Your task to perform on an android device: Look up the best rated drill on Lowes. Image 0: 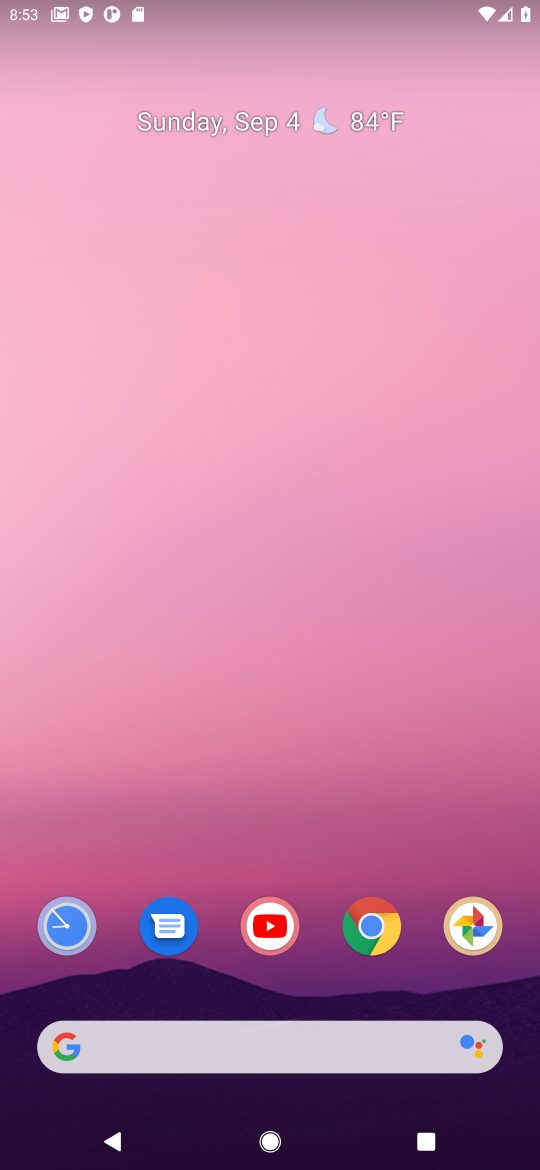
Step 0: click (188, 1048)
Your task to perform on an android device: Look up the best rated drill on Lowes. Image 1: 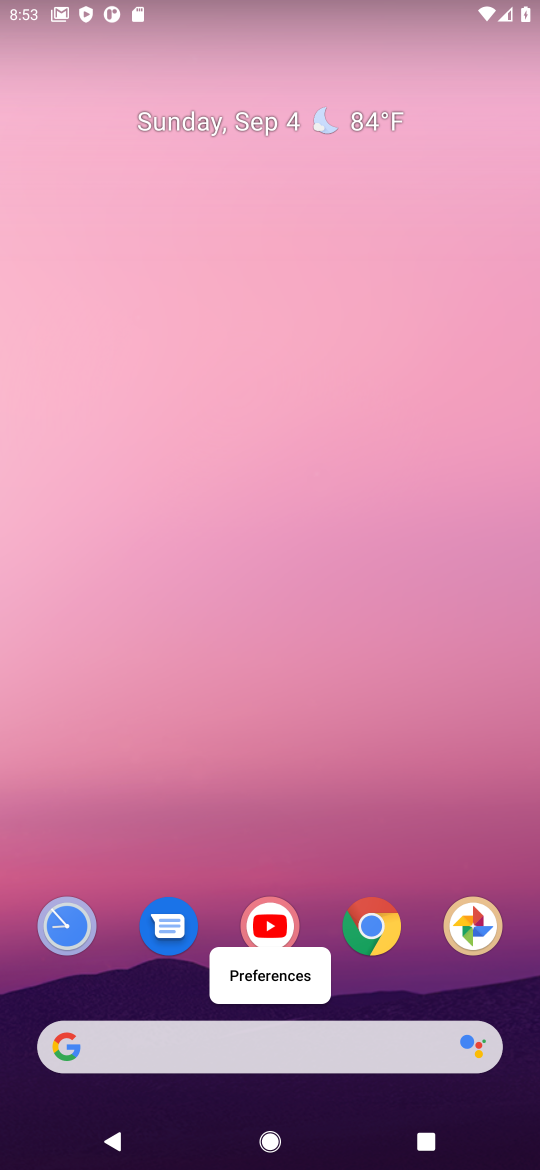
Step 1: click (188, 1048)
Your task to perform on an android device: Look up the best rated drill on Lowes. Image 2: 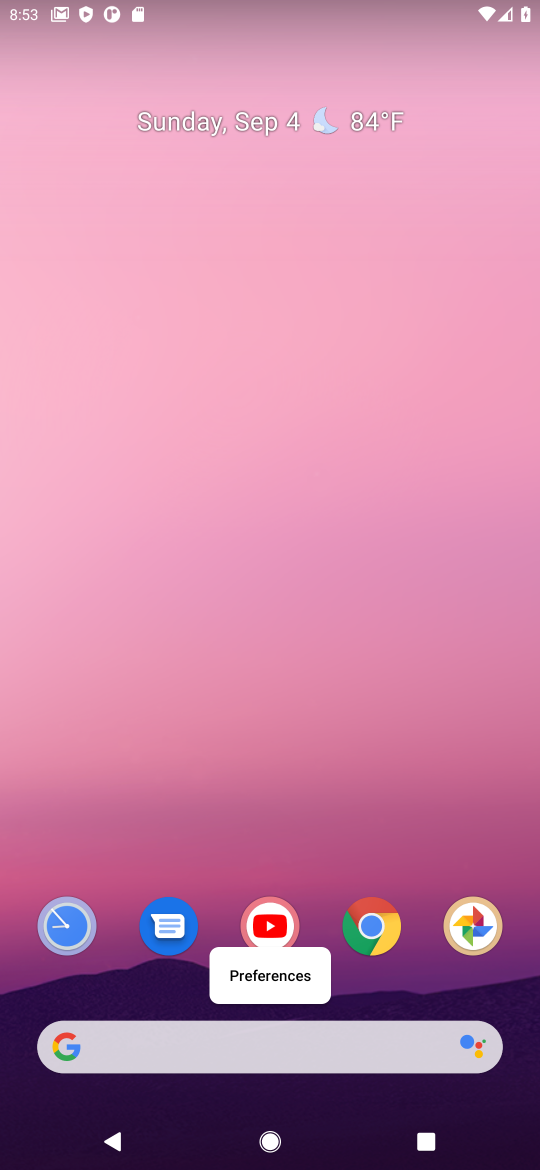
Step 2: click (309, 1039)
Your task to perform on an android device: Look up the best rated drill on Lowes. Image 3: 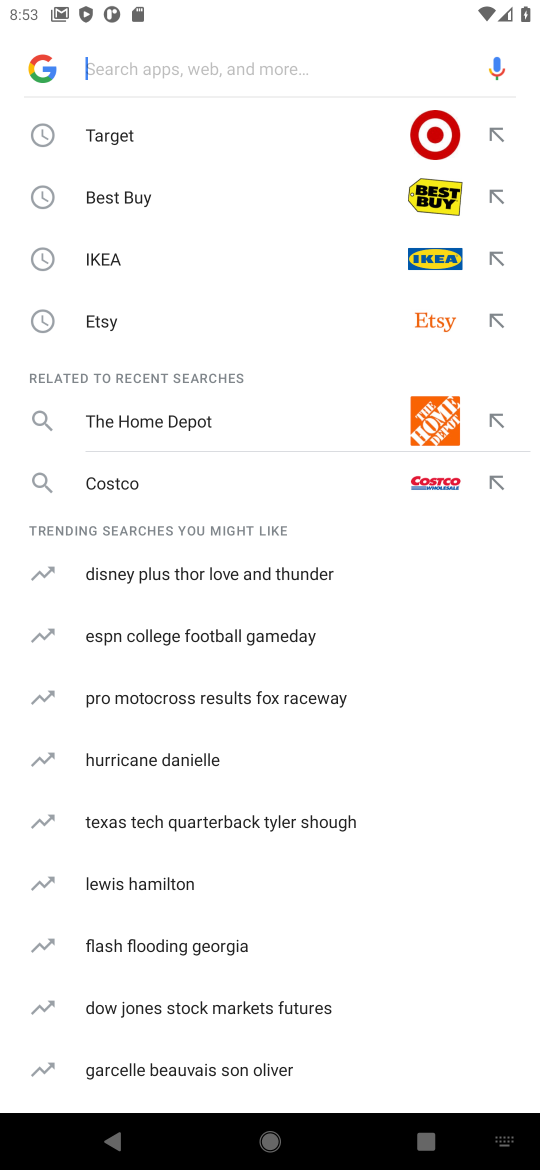
Step 3: type "lowes"
Your task to perform on an android device: Look up the best rated drill on Lowes. Image 4: 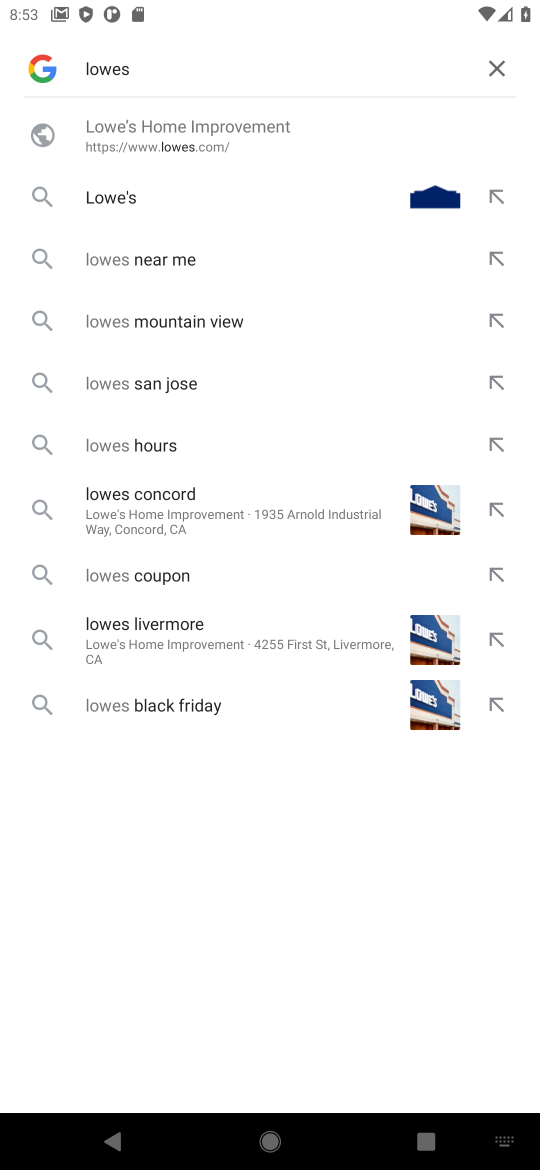
Step 4: click (122, 195)
Your task to perform on an android device: Look up the best rated drill on Lowes. Image 5: 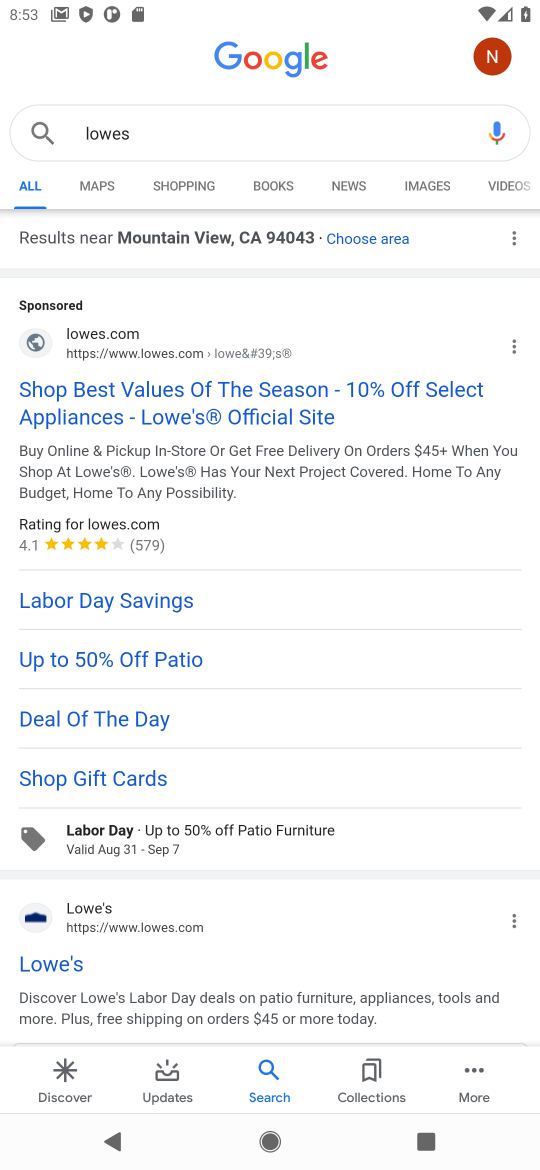
Step 5: click (116, 393)
Your task to perform on an android device: Look up the best rated drill on Lowes. Image 6: 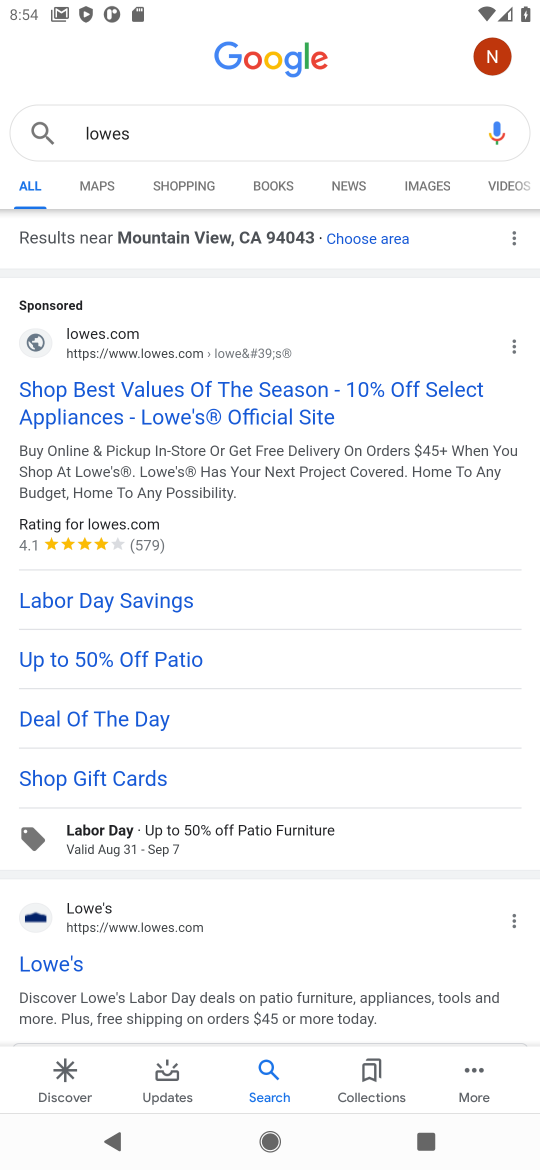
Step 6: click (50, 965)
Your task to perform on an android device: Look up the best rated drill on Lowes. Image 7: 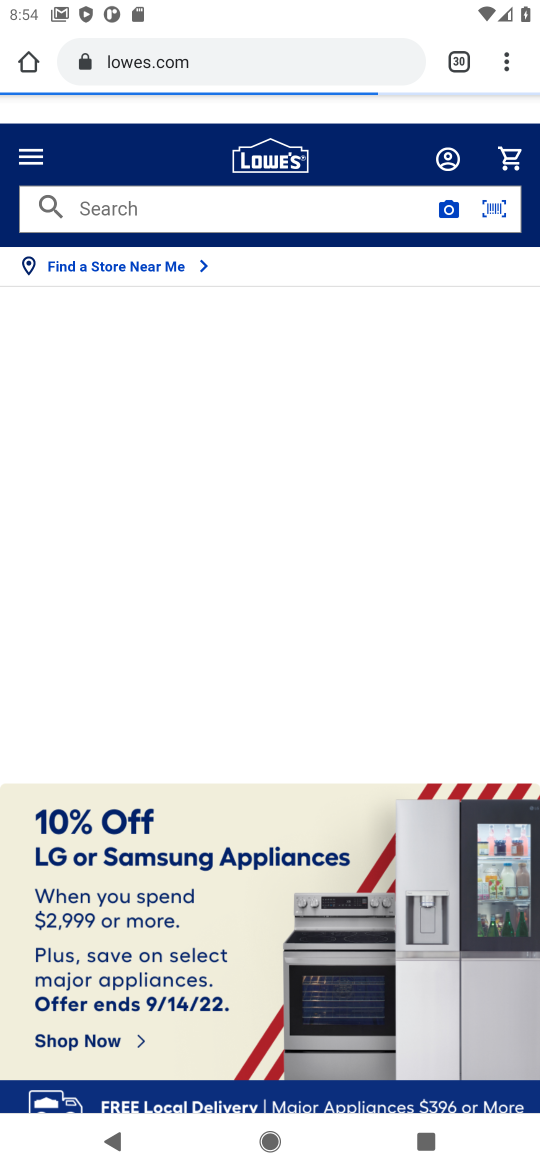
Step 7: click (86, 203)
Your task to perform on an android device: Look up the best rated drill on Lowes. Image 8: 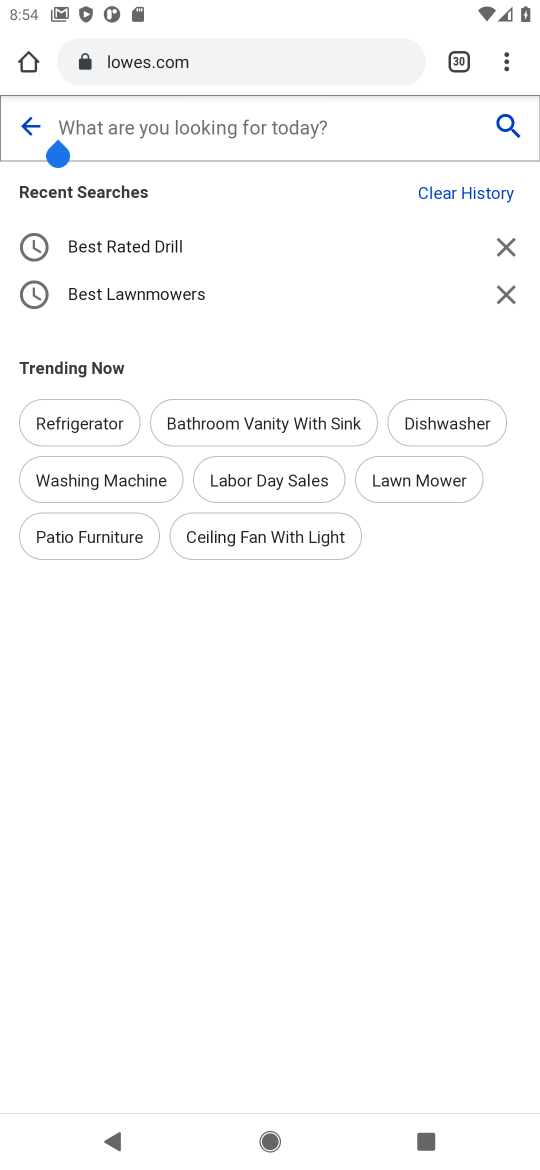
Step 8: type "best rated drill"
Your task to perform on an android device: Look up the best rated drill on Lowes. Image 9: 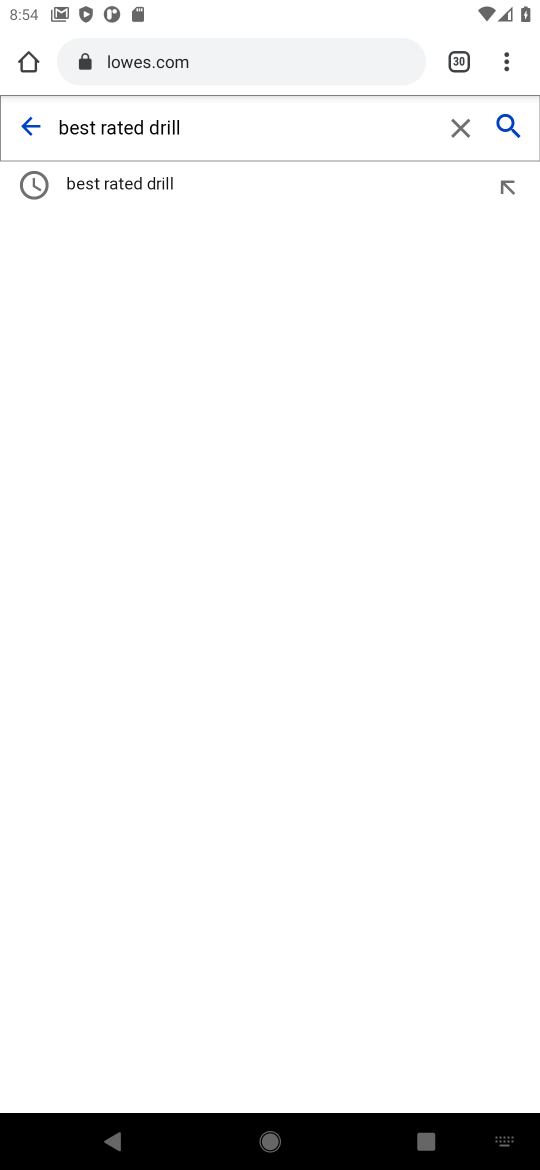
Step 9: click (507, 126)
Your task to perform on an android device: Look up the best rated drill on Lowes. Image 10: 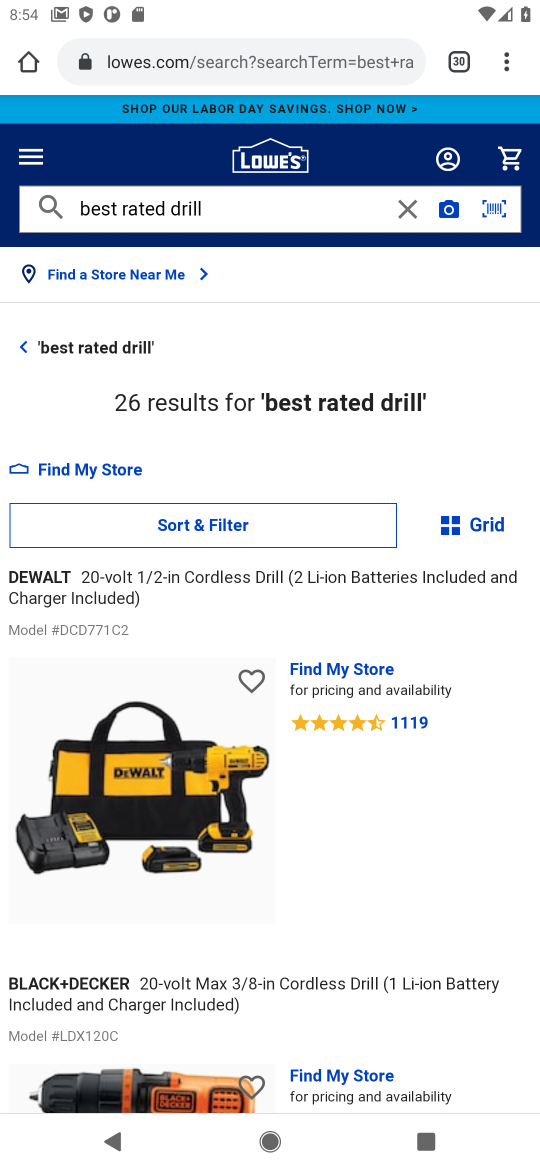
Step 10: task complete